Your task to perform on an android device: toggle priority inbox in the gmail app Image 0: 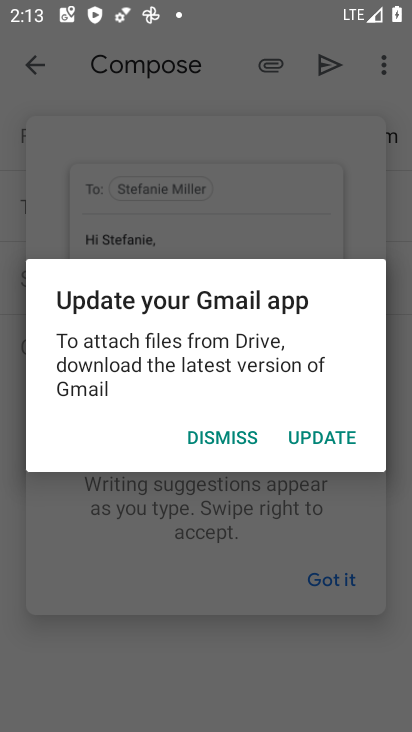
Step 0: press home button
Your task to perform on an android device: toggle priority inbox in the gmail app Image 1: 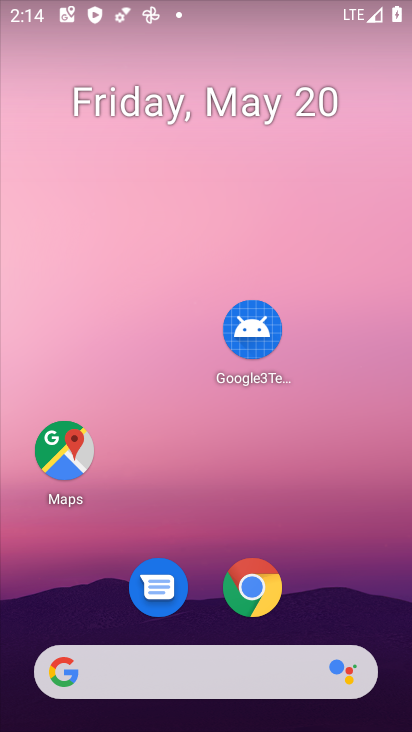
Step 1: click (278, 84)
Your task to perform on an android device: toggle priority inbox in the gmail app Image 2: 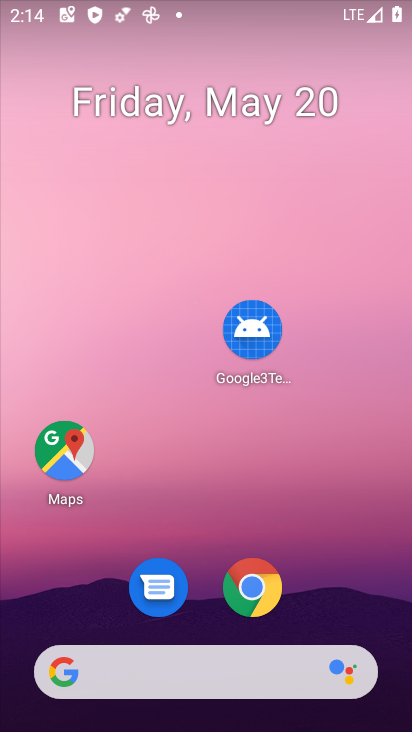
Step 2: drag from (186, 513) to (192, 10)
Your task to perform on an android device: toggle priority inbox in the gmail app Image 3: 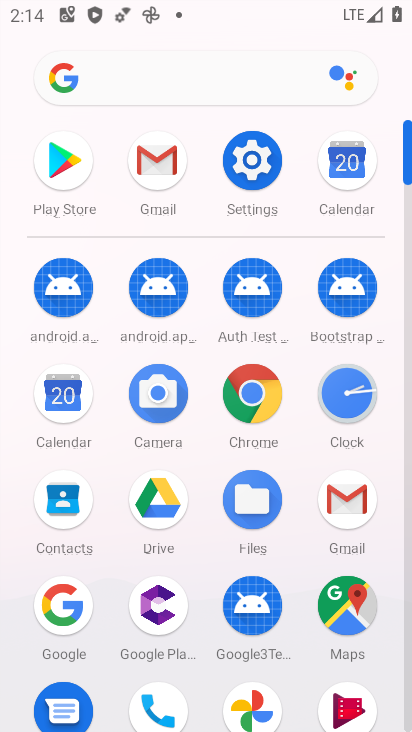
Step 3: click (339, 494)
Your task to perform on an android device: toggle priority inbox in the gmail app Image 4: 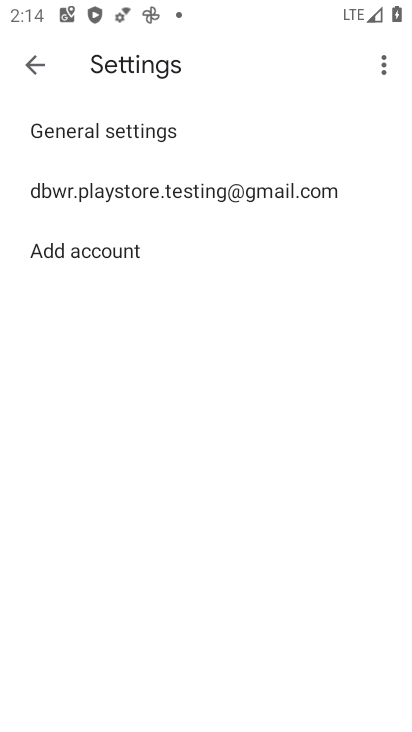
Step 4: click (117, 182)
Your task to perform on an android device: toggle priority inbox in the gmail app Image 5: 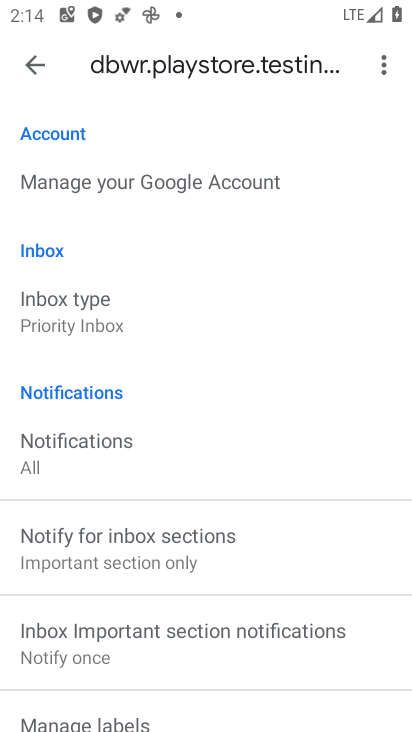
Step 5: click (56, 294)
Your task to perform on an android device: toggle priority inbox in the gmail app Image 6: 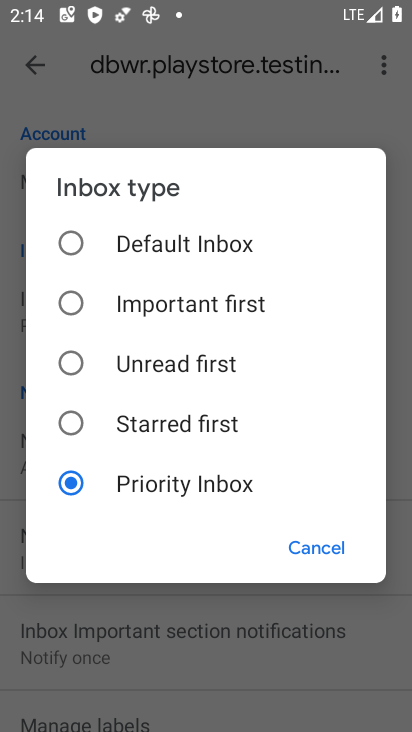
Step 6: click (73, 250)
Your task to perform on an android device: toggle priority inbox in the gmail app Image 7: 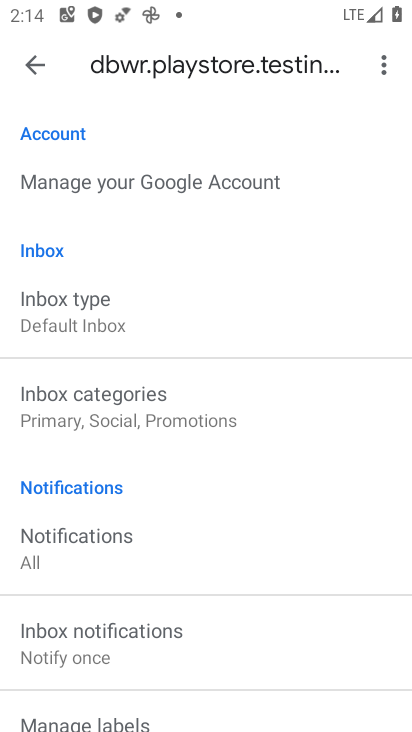
Step 7: task complete